Your task to perform on an android device: open the mobile data screen to see how much data has been used Image 0: 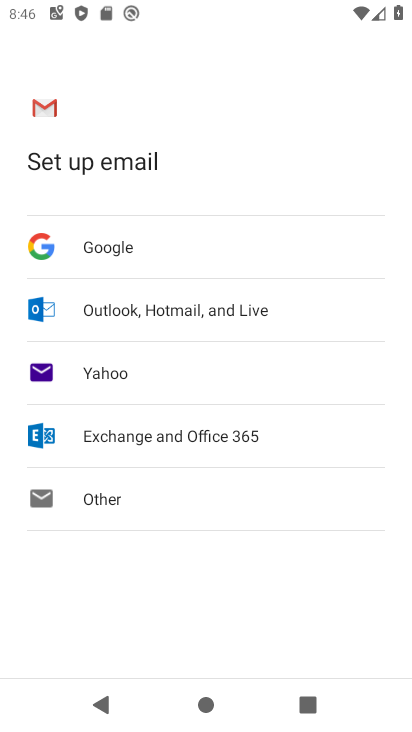
Step 0: press home button
Your task to perform on an android device: open the mobile data screen to see how much data has been used Image 1: 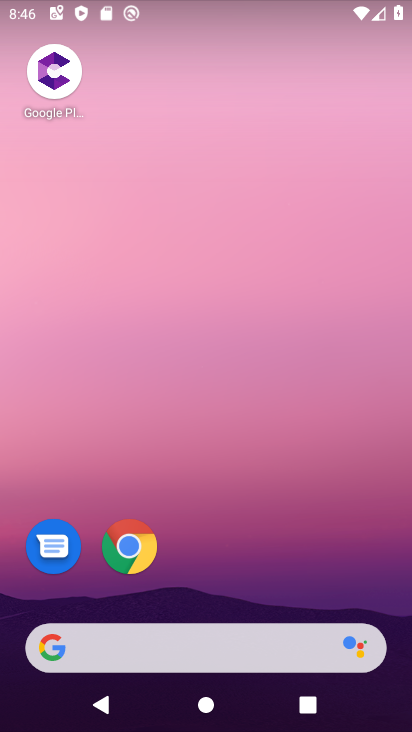
Step 1: drag from (217, 565) to (217, 130)
Your task to perform on an android device: open the mobile data screen to see how much data has been used Image 2: 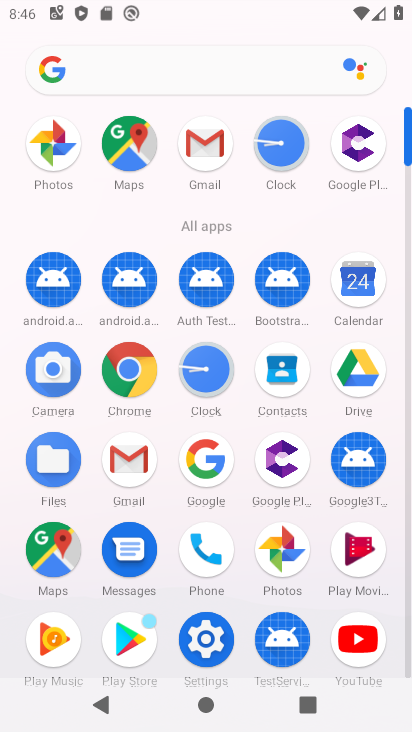
Step 2: click (210, 639)
Your task to perform on an android device: open the mobile data screen to see how much data has been used Image 3: 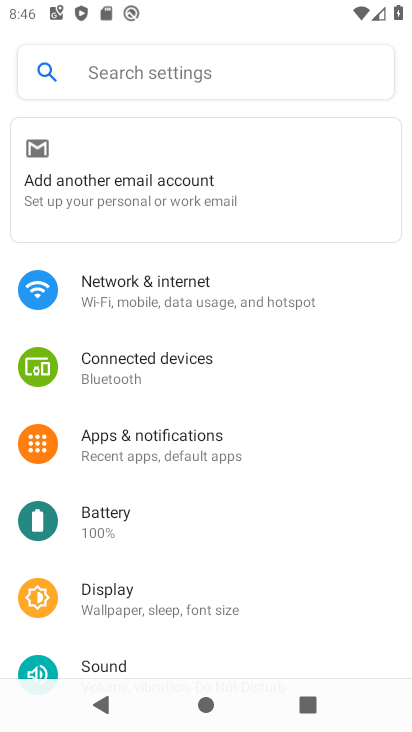
Step 3: click (130, 290)
Your task to perform on an android device: open the mobile data screen to see how much data has been used Image 4: 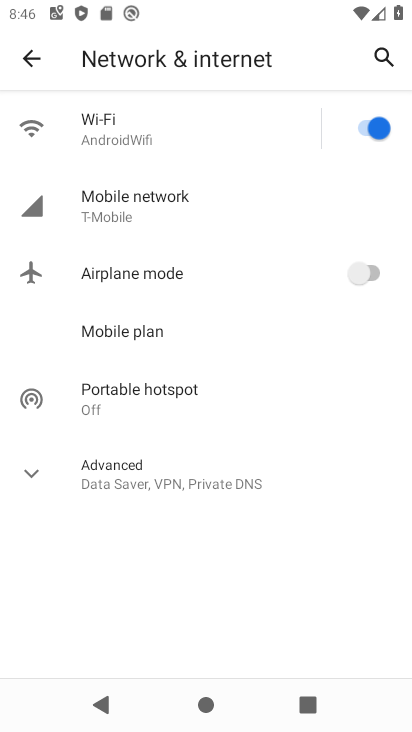
Step 4: click (145, 481)
Your task to perform on an android device: open the mobile data screen to see how much data has been used Image 5: 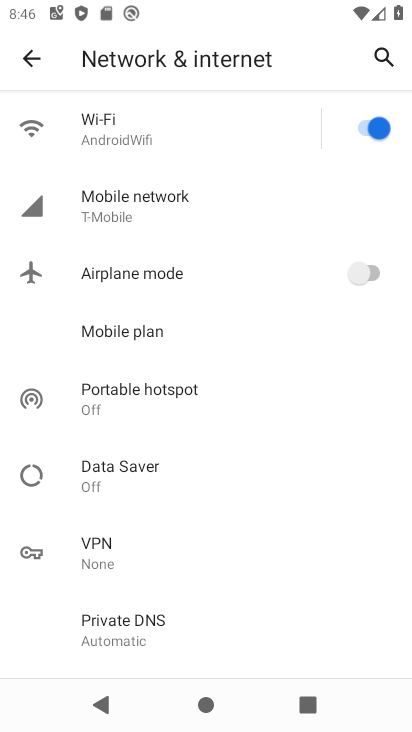
Step 5: click (122, 189)
Your task to perform on an android device: open the mobile data screen to see how much data has been used Image 6: 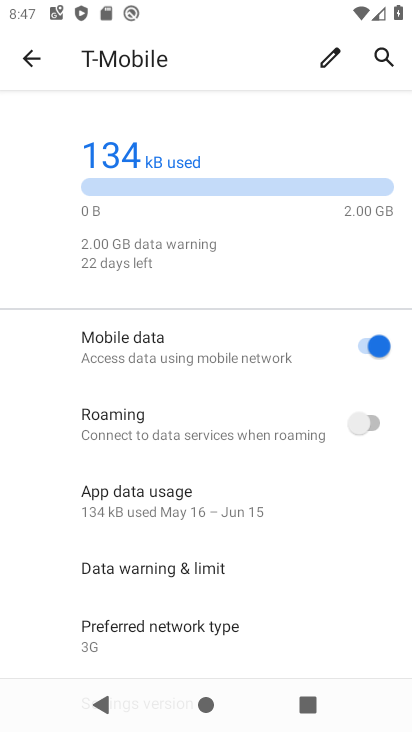
Step 6: task complete